Your task to perform on an android device: Go to location settings Image 0: 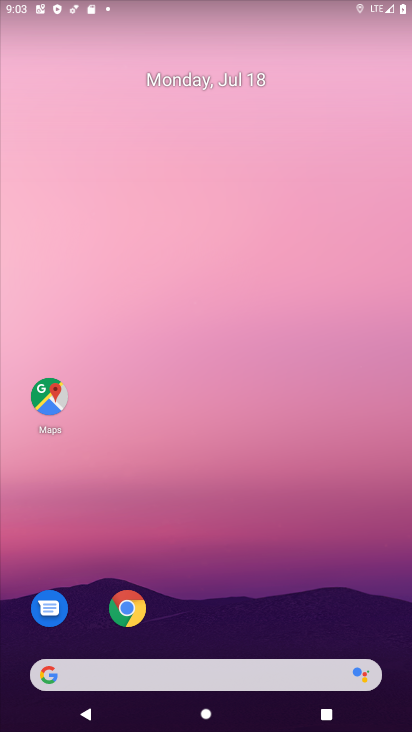
Step 0: click (82, 674)
Your task to perform on an android device: Go to location settings Image 1: 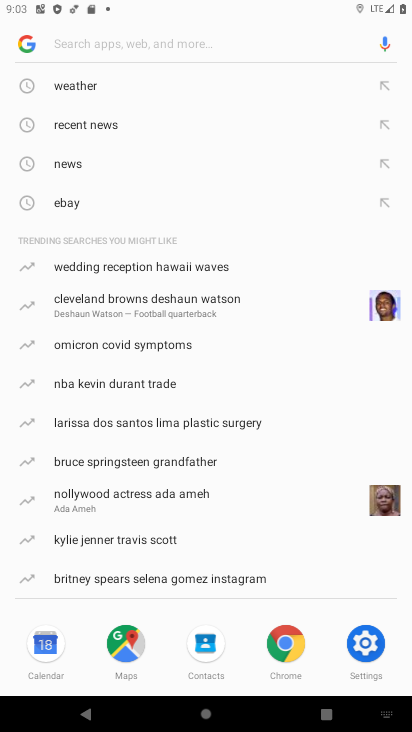
Step 1: press home button
Your task to perform on an android device: Go to location settings Image 2: 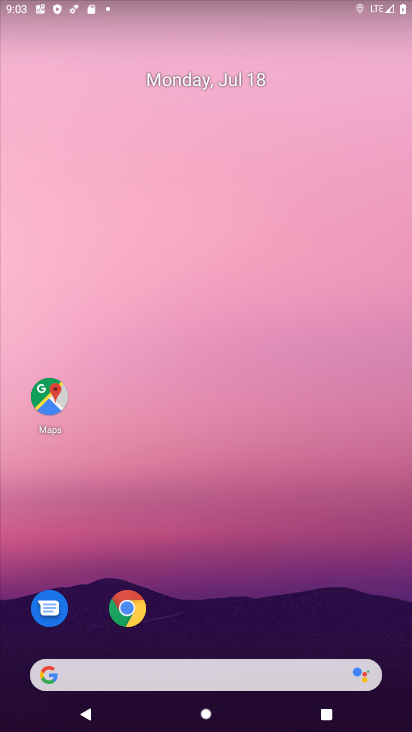
Step 2: drag from (15, 704) to (282, 15)
Your task to perform on an android device: Go to location settings Image 3: 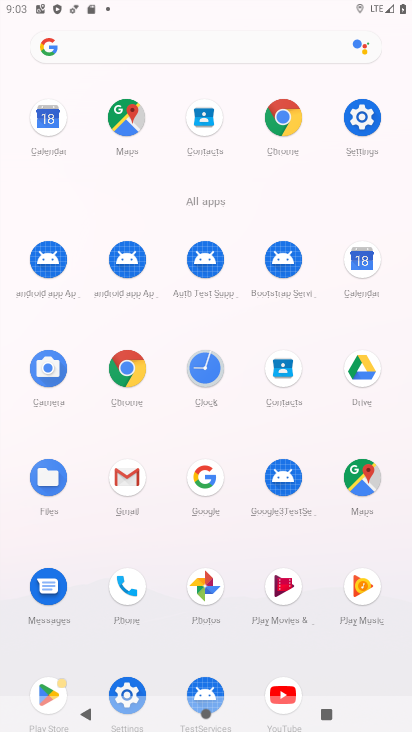
Step 3: click (118, 689)
Your task to perform on an android device: Go to location settings Image 4: 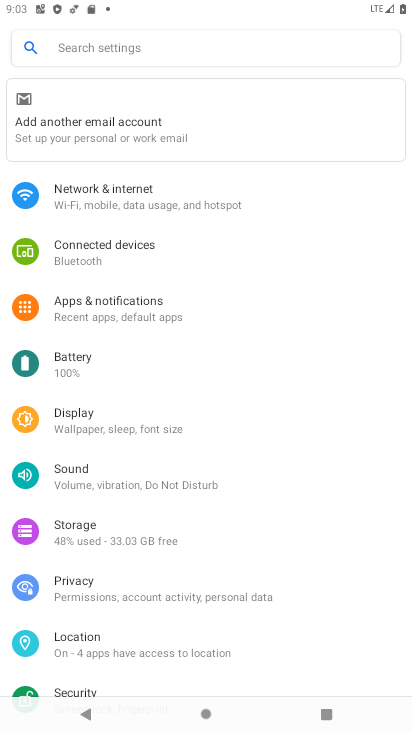
Step 4: click (113, 640)
Your task to perform on an android device: Go to location settings Image 5: 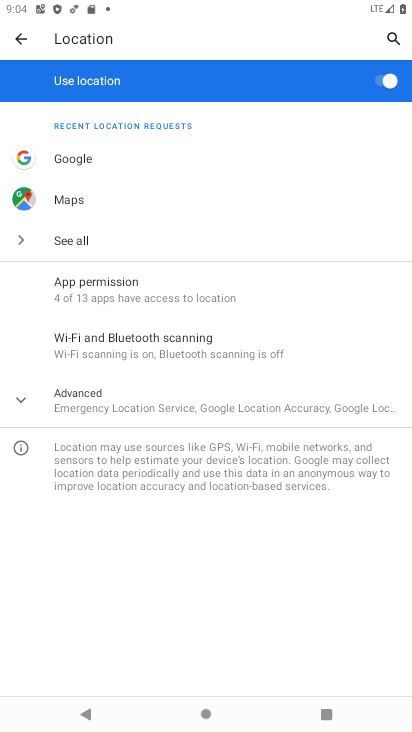
Step 5: task complete